Your task to perform on an android device: See recent photos Image 0: 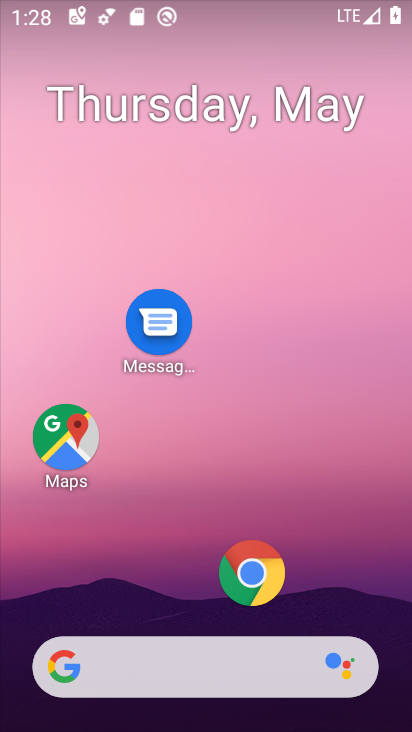
Step 0: drag from (208, 420) to (232, 223)
Your task to perform on an android device: See recent photos Image 1: 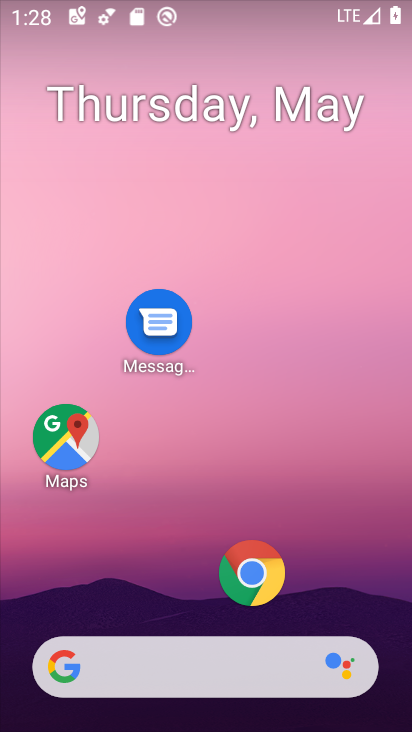
Step 1: drag from (178, 589) to (210, 72)
Your task to perform on an android device: See recent photos Image 2: 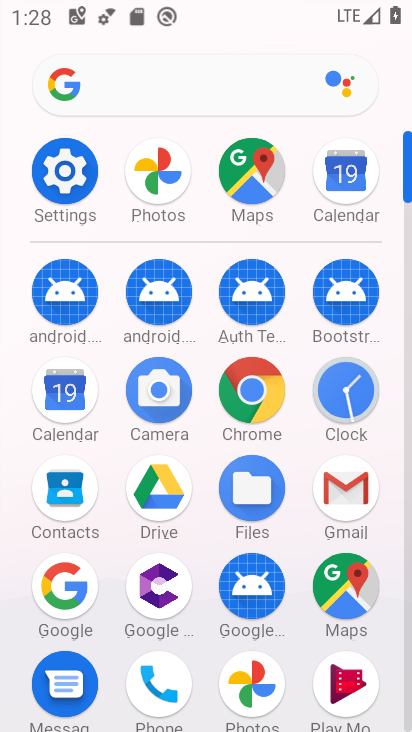
Step 2: click (238, 686)
Your task to perform on an android device: See recent photos Image 3: 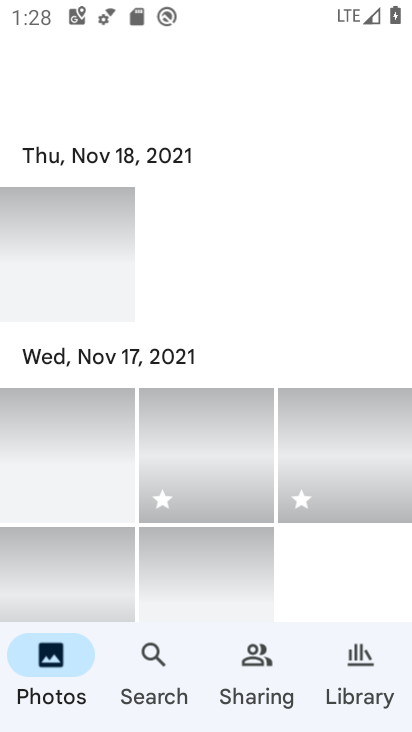
Step 3: drag from (234, 567) to (234, 332)
Your task to perform on an android device: See recent photos Image 4: 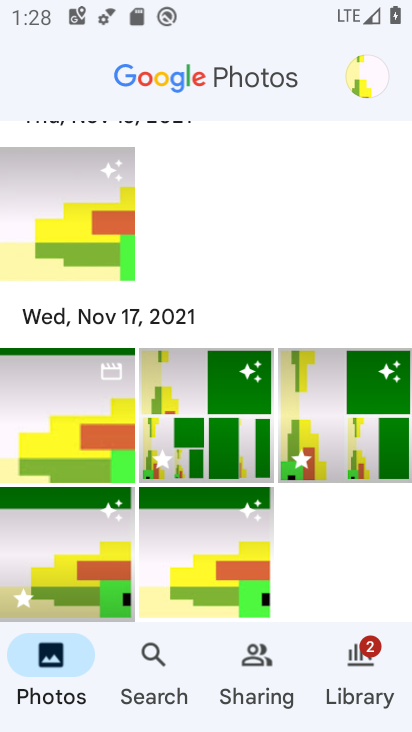
Step 4: click (66, 436)
Your task to perform on an android device: See recent photos Image 5: 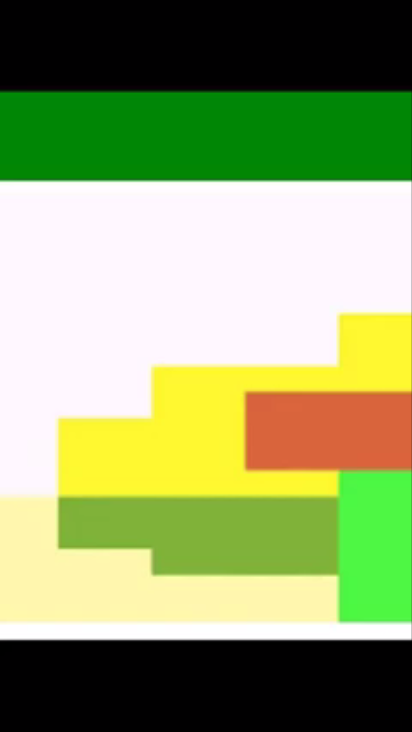
Step 5: task complete